Your task to perform on an android device: check data usage Image 0: 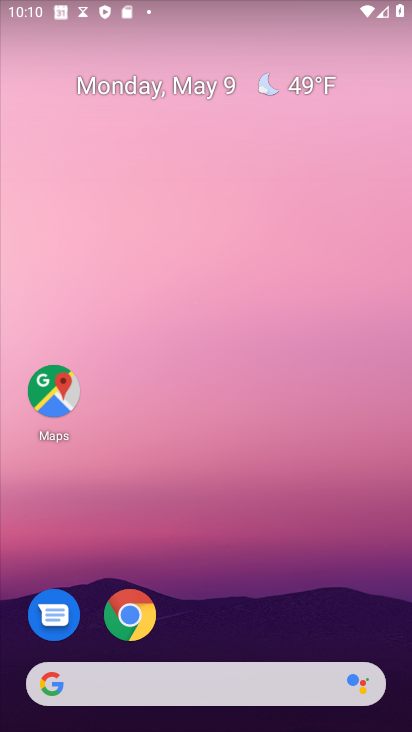
Step 0: drag from (247, 556) to (200, 205)
Your task to perform on an android device: check data usage Image 1: 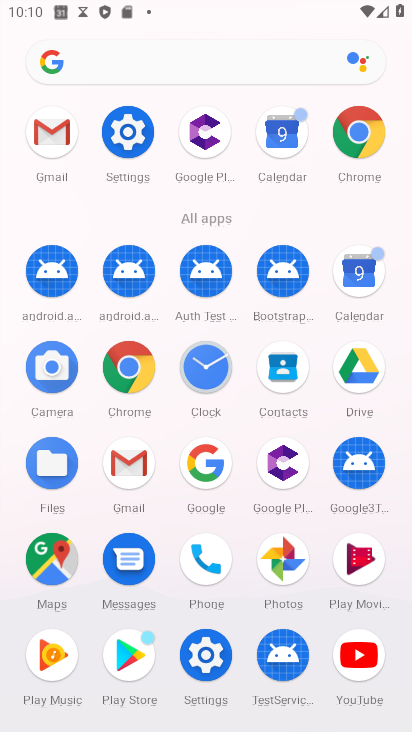
Step 1: click (140, 138)
Your task to perform on an android device: check data usage Image 2: 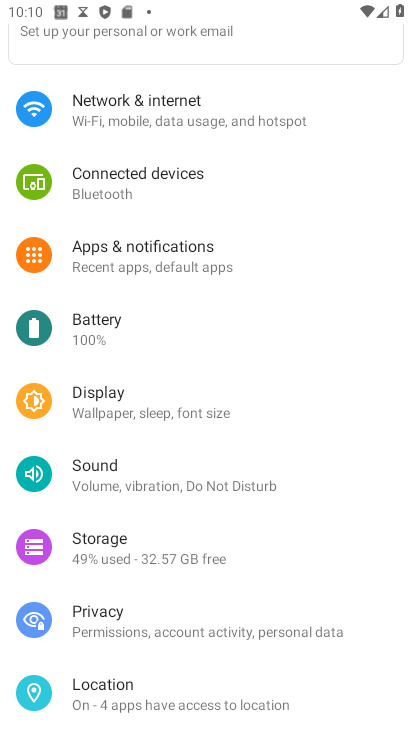
Step 2: click (197, 118)
Your task to perform on an android device: check data usage Image 3: 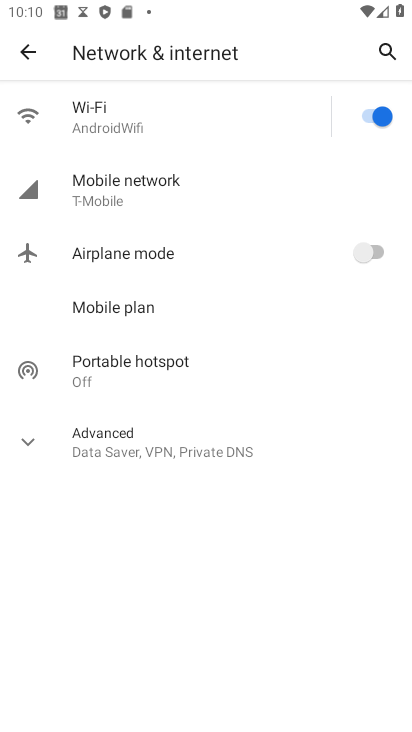
Step 3: click (149, 187)
Your task to perform on an android device: check data usage Image 4: 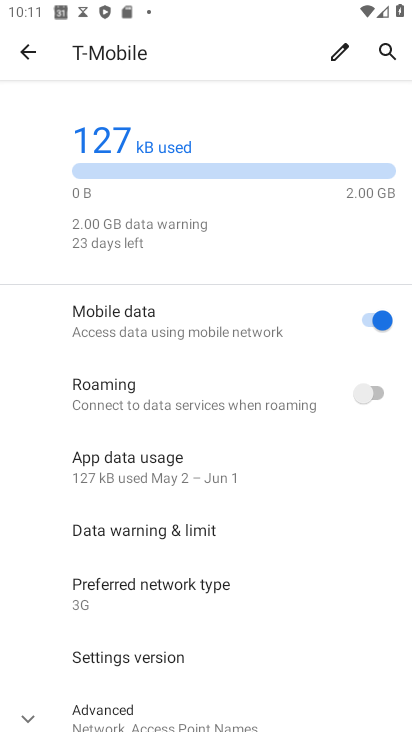
Step 4: click (191, 480)
Your task to perform on an android device: check data usage Image 5: 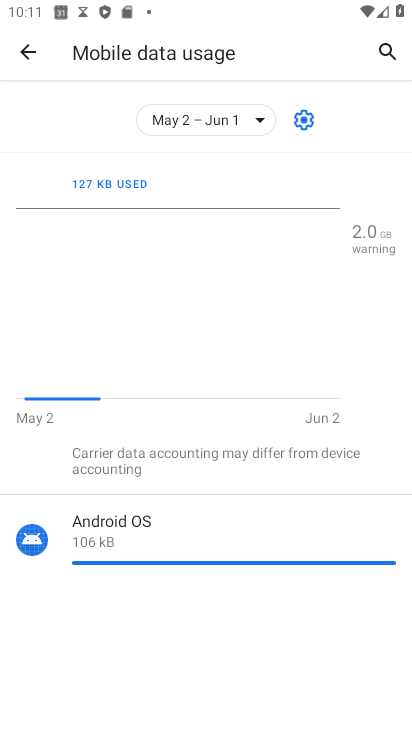
Step 5: task complete